Your task to perform on an android device: allow cookies in the chrome app Image 0: 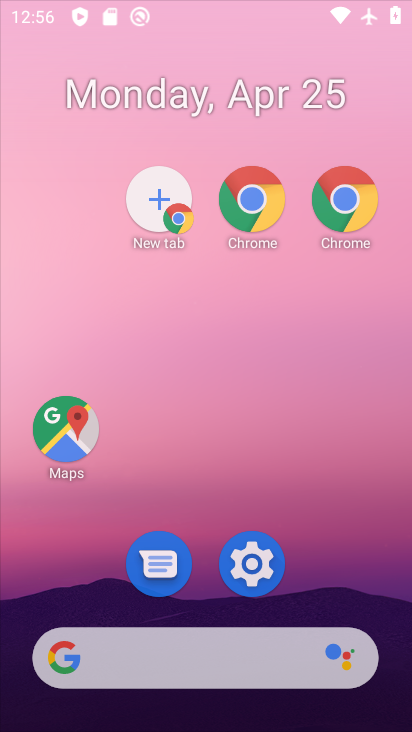
Step 0: click (128, 186)
Your task to perform on an android device: allow cookies in the chrome app Image 1: 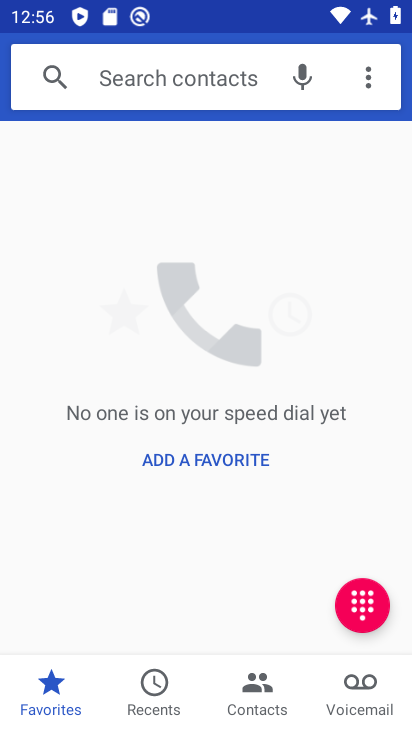
Step 1: press home button
Your task to perform on an android device: allow cookies in the chrome app Image 2: 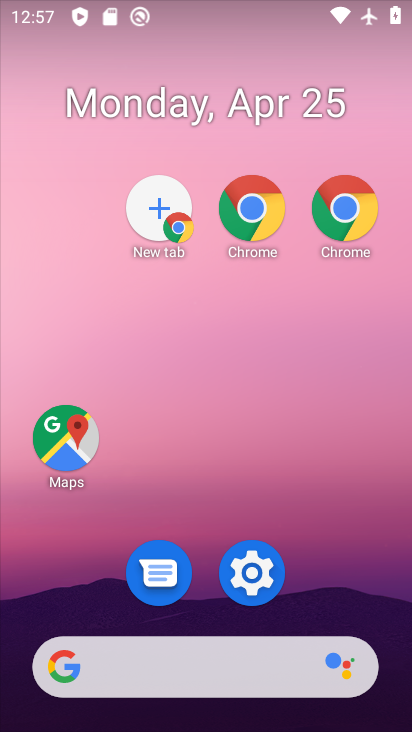
Step 2: drag from (304, 697) to (155, 153)
Your task to perform on an android device: allow cookies in the chrome app Image 3: 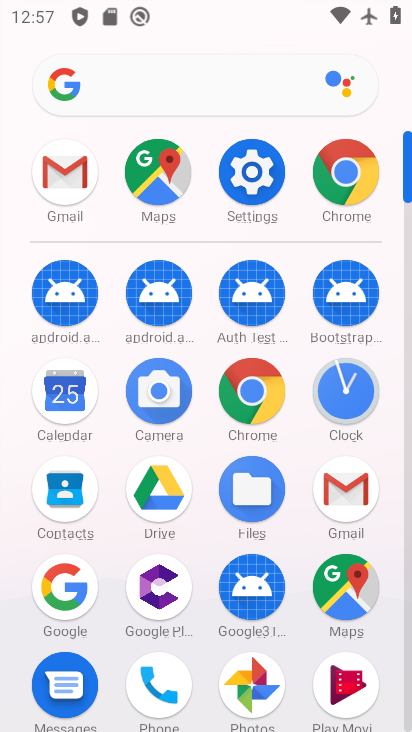
Step 3: click (353, 186)
Your task to perform on an android device: allow cookies in the chrome app Image 4: 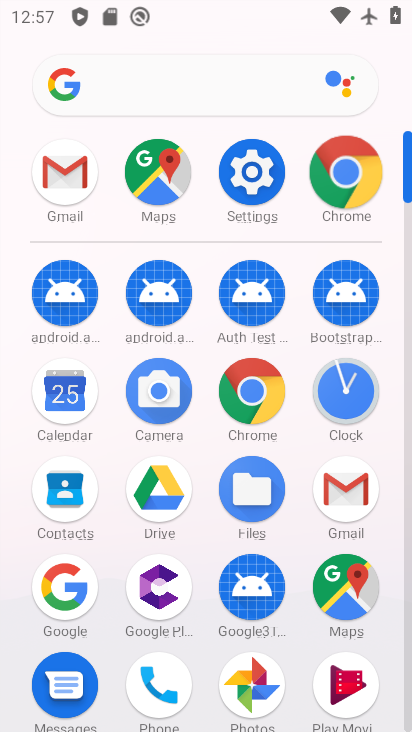
Step 4: click (353, 186)
Your task to perform on an android device: allow cookies in the chrome app Image 5: 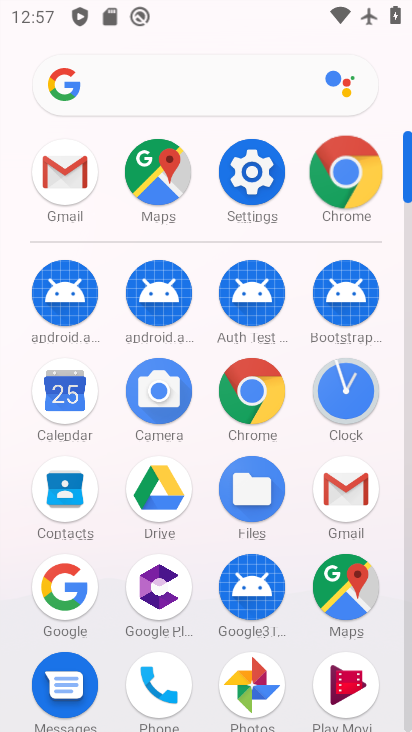
Step 5: click (353, 186)
Your task to perform on an android device: allow cookies in the chrome app Image 6: 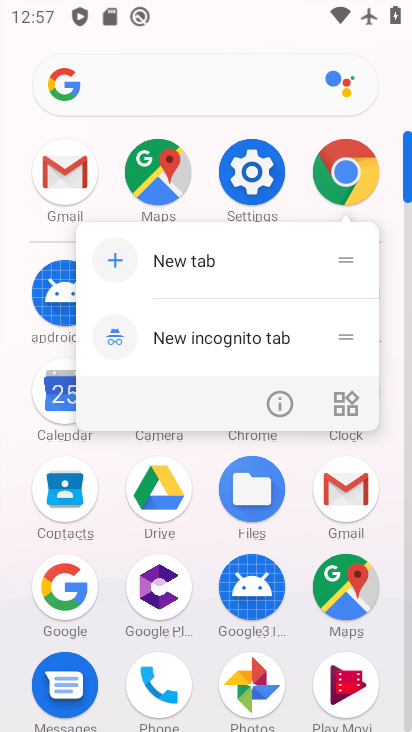
Step 6: click (353, 186)
Your task to perform on an android device: allow cookies in the chrome app Image 7: 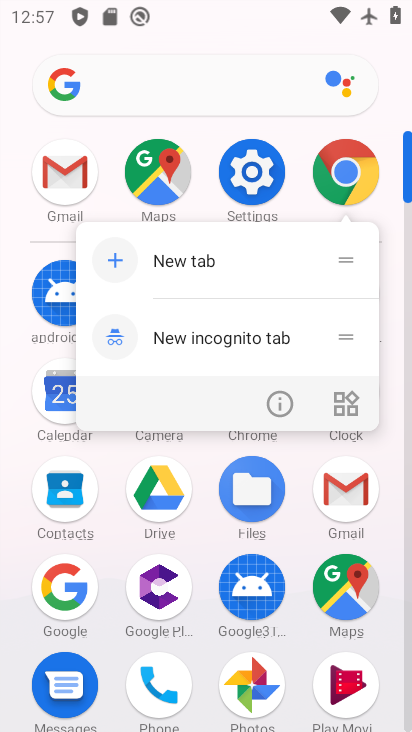
Step 7: click (352, 185)
Your task to perform on an android device: allow cookies in the chrome app Image 8: 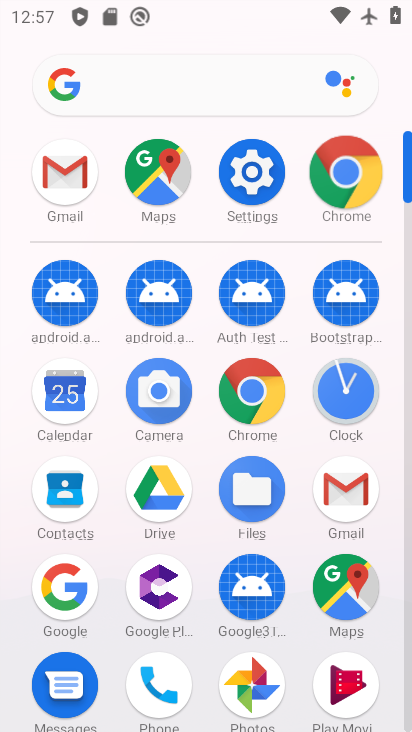
Step 8: click (352, 185)
Your task to perform on an android device: allow cookies in the chrome app Image 9: 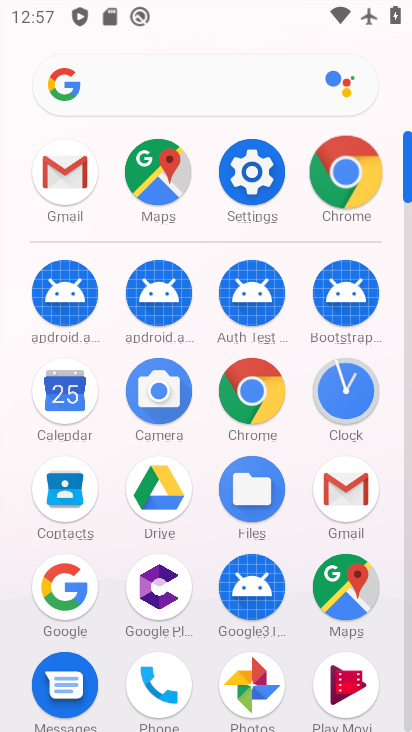
Step 9: click (340, 167)
Your task to perform on an android device: allow cookies in the chrome app Image 10: 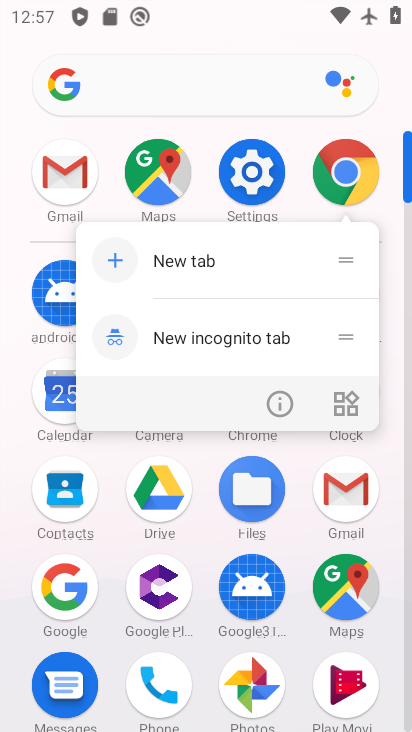
Step 10: click (347, 188)
Your task to perform on an android device: allow cookies in the chrome app Image 11: 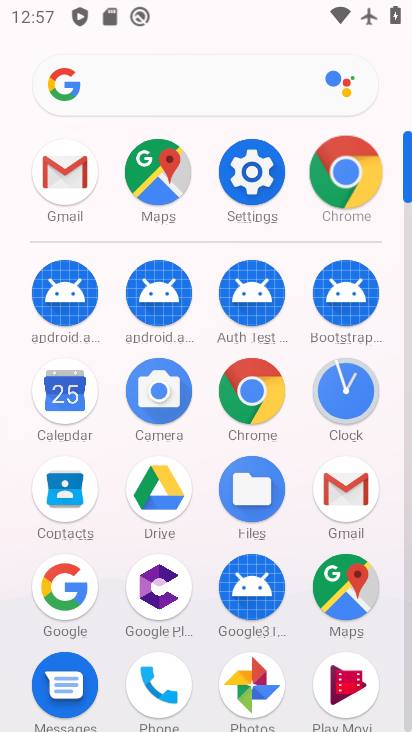
Step 11: click (345, 169)
Your task to perform on an android device: allow cookies in the chrome app Image 12: 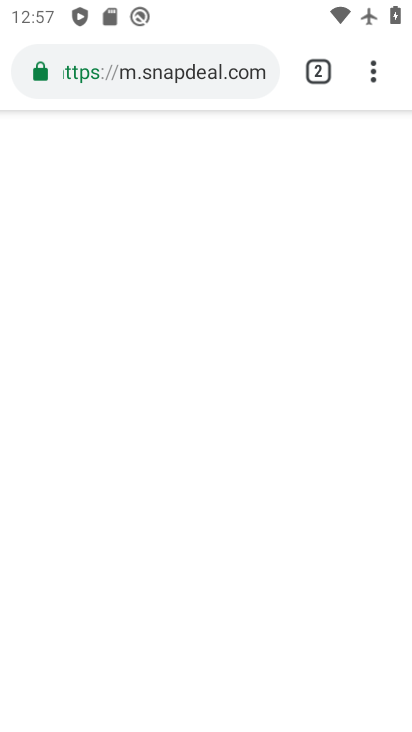
Step 12: drag from (370, 69) to (118, 567)
Your task to perform on an android device: allow cookies in the chrome app Image 13: 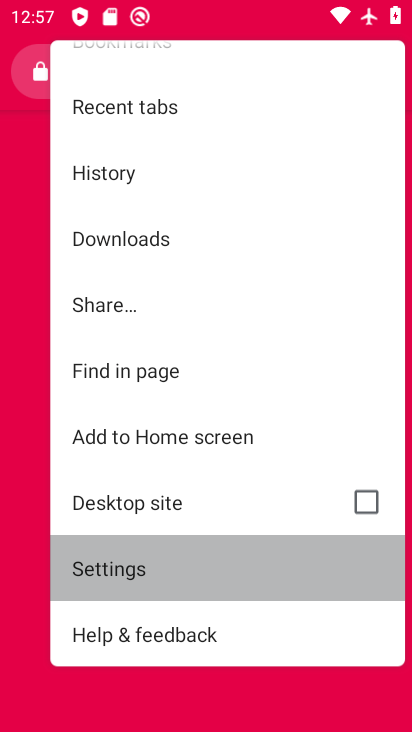
Step 13: click (118, 565)
Your task to perform on an android device: allow cookies in the chrome app Image 14: 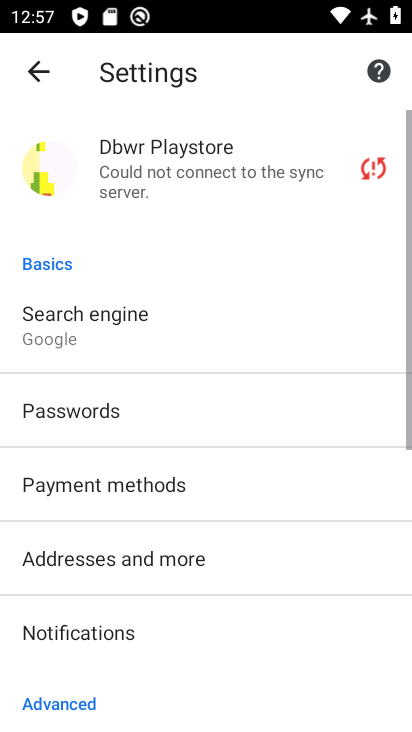
Step 14: drag from (116, 557) to (62, 168)
Your task to perform on an android device: allow cookies in the chrome app Image 15: 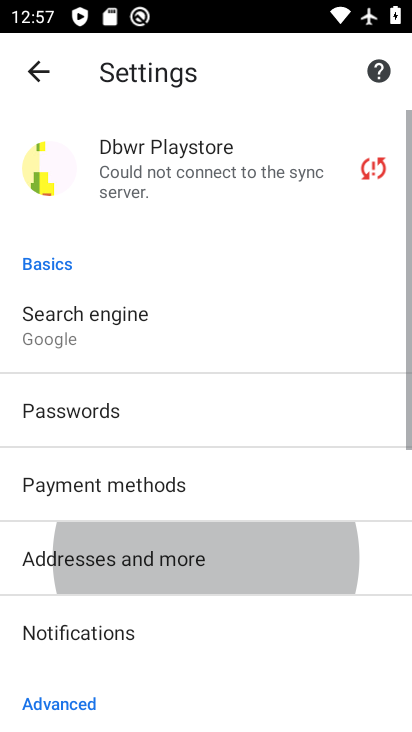
Step 15: drag from (117, 576) to (102, 204)
Your task to perform on an android device: allow cookies in the chrome app Image 16: 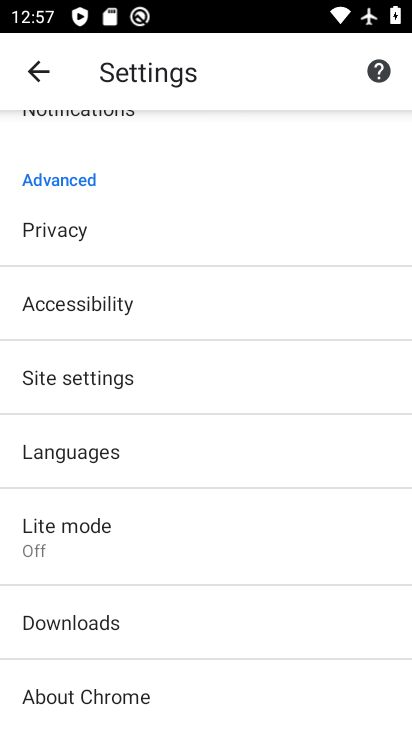
Step 16: click (65, 374)
Your task to perform on an android device: allow cookies in the chrome app Image 17: 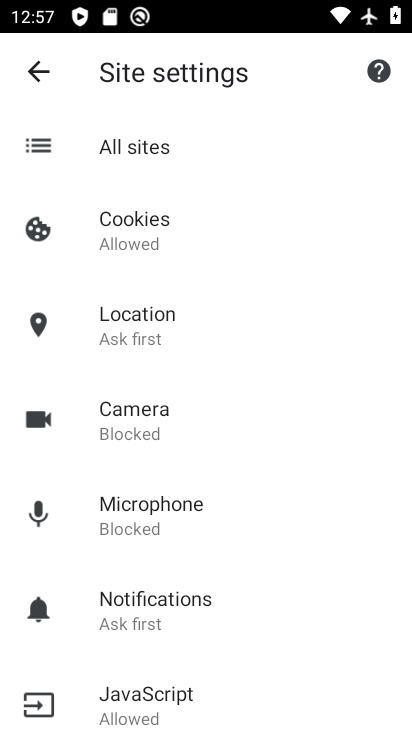
Step 17: click (129, 234)
Your task to perform on an android device: allow cookies in the chrome app Image 18: 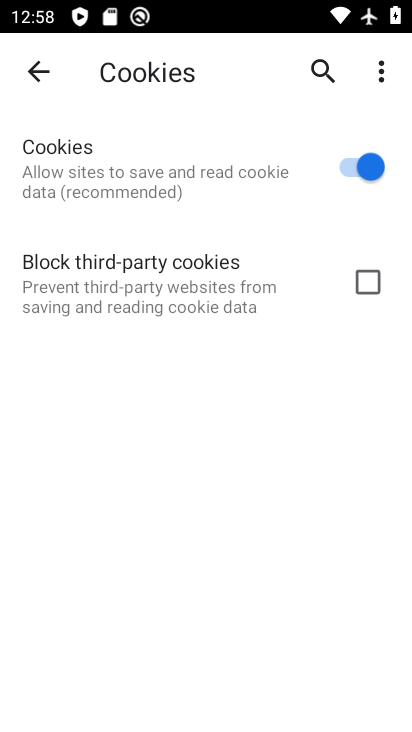
Step 18: task complete